Your task to perform on an android device: change your default location settings in chrome Image 0: 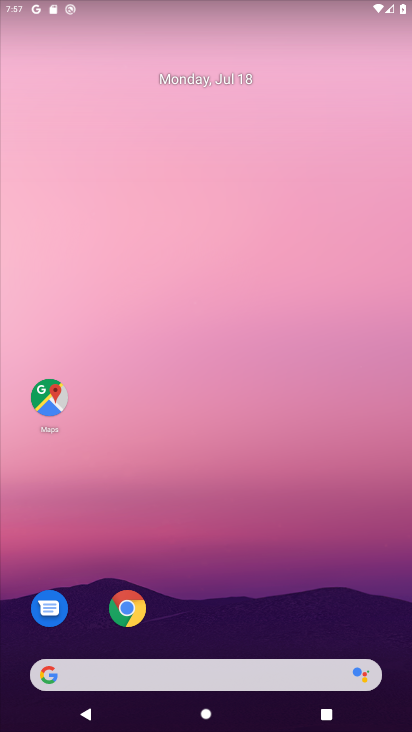
Step 0: drag from (214, 647) to (186, 62)
Your task to perform on an android device: change your default location settings in chrome Image 1: 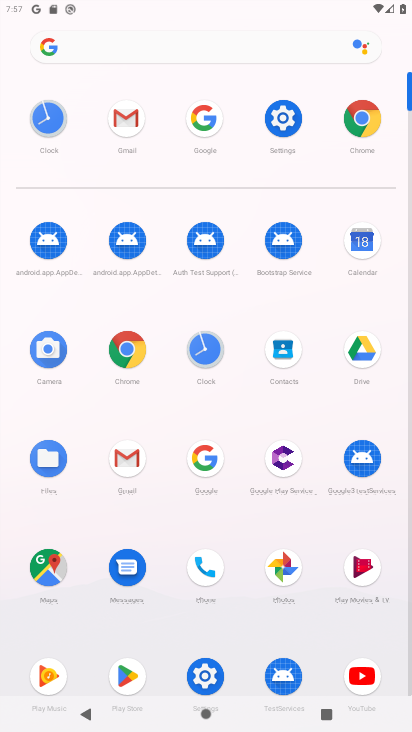
Step 1: click (134, 353)
Your task to perform on an android device: change your default location settings in chrome Image 2: 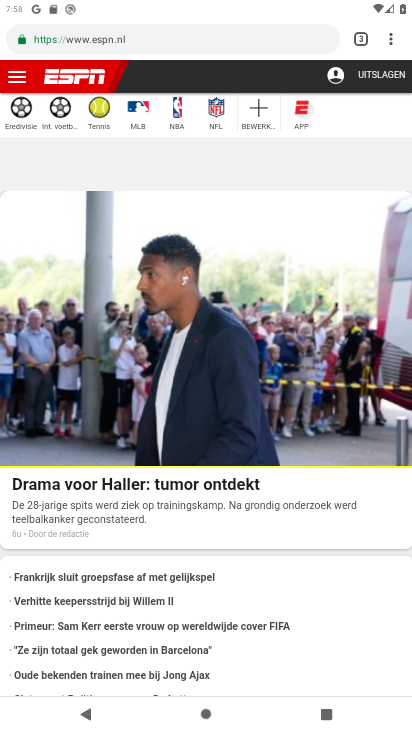
Step 2: drag from (392, 40) to (257, 476)
Your task to perform on an android device: change your default location settings in chrome Image 3: 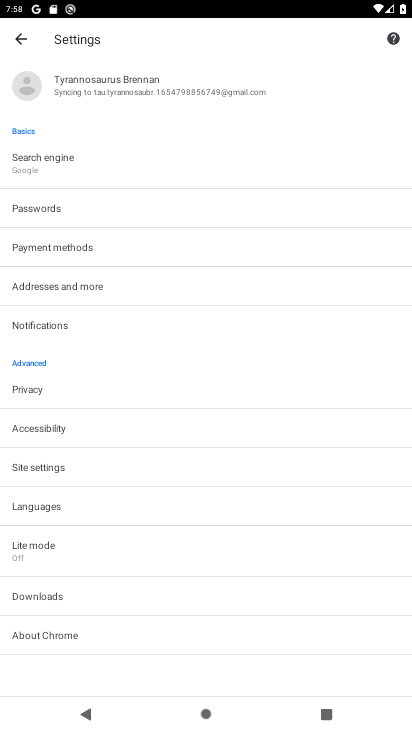
Step 3: click (58, 466)
Your task to perform on an android device: change your default location settings in chrome Image 4: 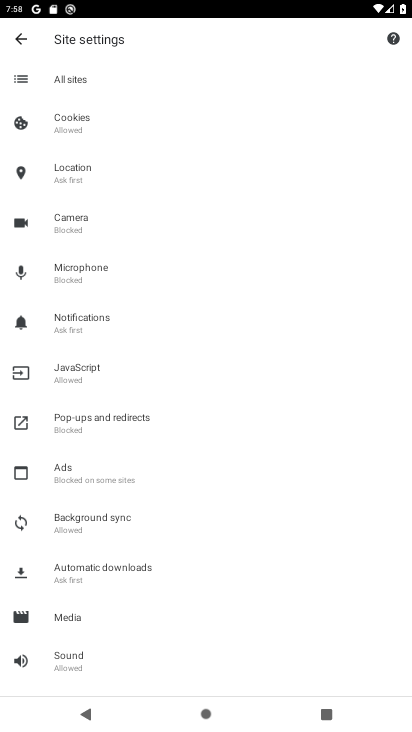
Step 4: click (83, 162)
Your task to perform on an android device: change your default location settings in chrome Image 5: 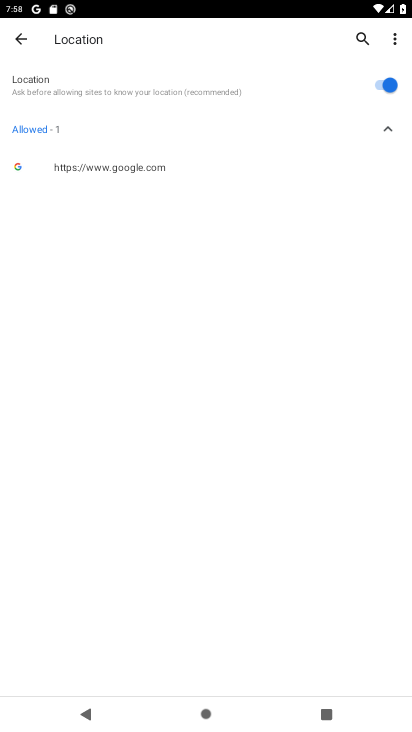
Step 5: click (383, 79)
Your task to perform on an android device: change your default location settings in chrome Image 6: 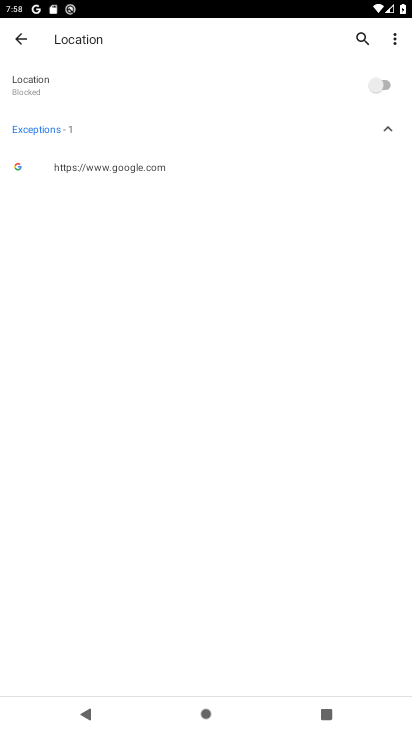
Step 6: task complete